Your task to perform on an android device: delete browsing data in the chrome app Image 0: 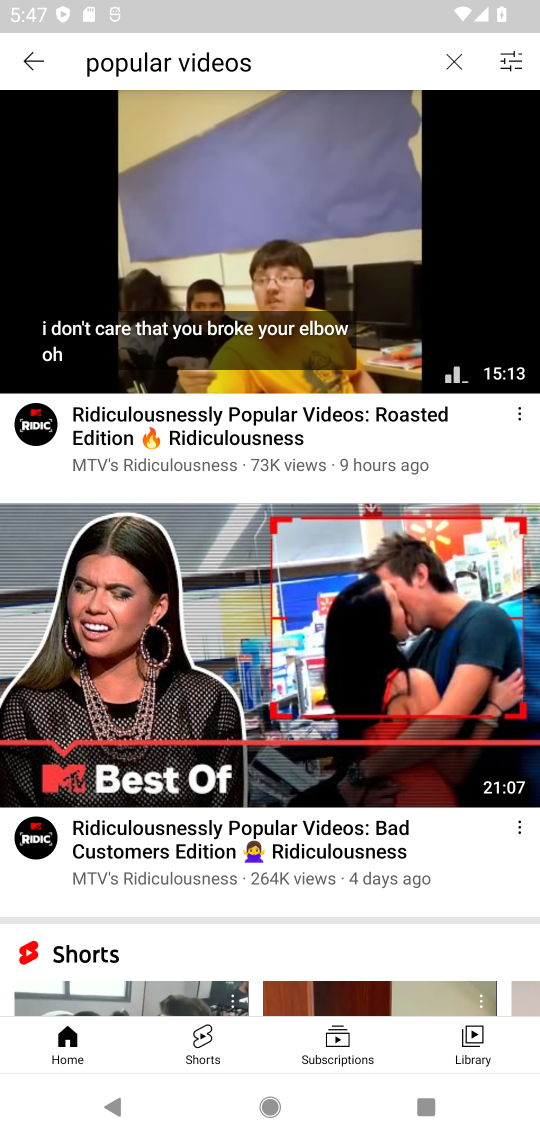
Step 0: press home button
Your task to perform on an android device: delete browsing data in the chrome app Image 1: 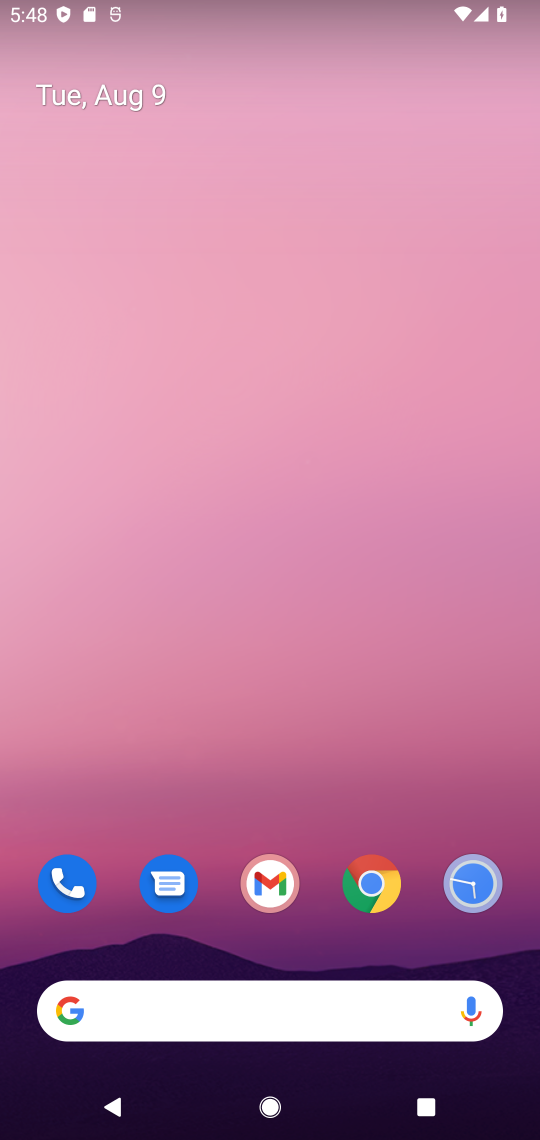
Step 1: click (384, 872)
Your task to perform on an android device: delete browsing data in the chrome app Image 2: 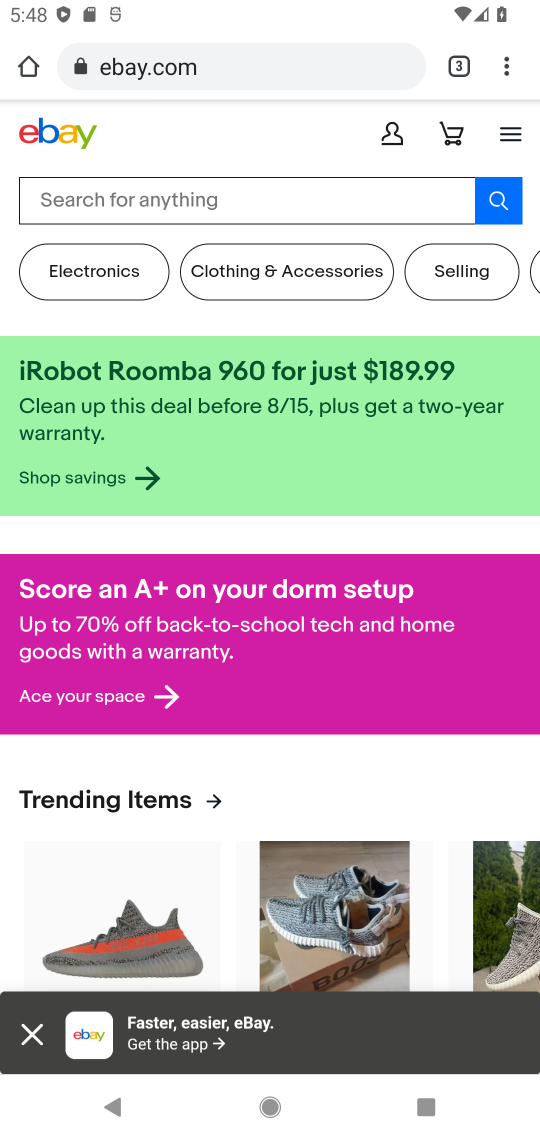
Step 2: click (512, 70)
Your task to perform on an android device: delete browsing data in the chrome app Image 3: 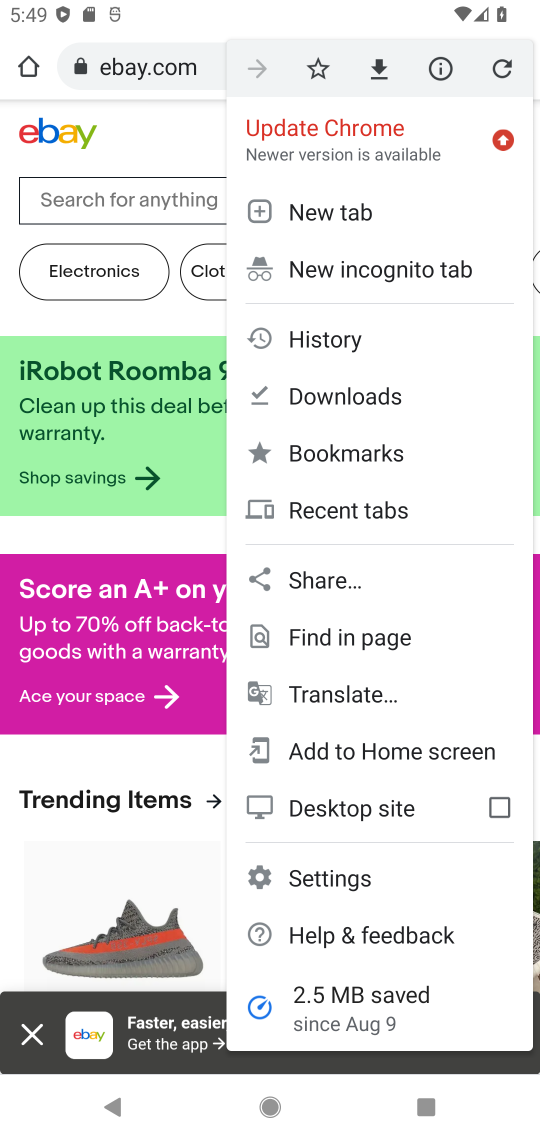
Step 3: click (337, 349)
Your task to perform on an android device: delete browsing data in the chrome app Image 4: 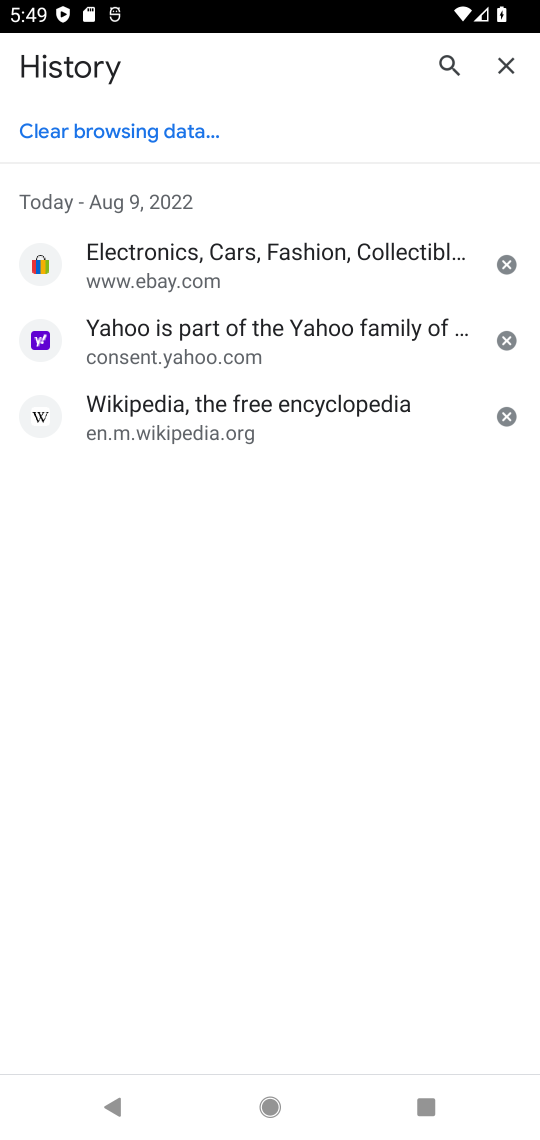
Step 4: click (74, 131)
Your task to perform on an android device: delete browsing data in the chrome app Image 5: 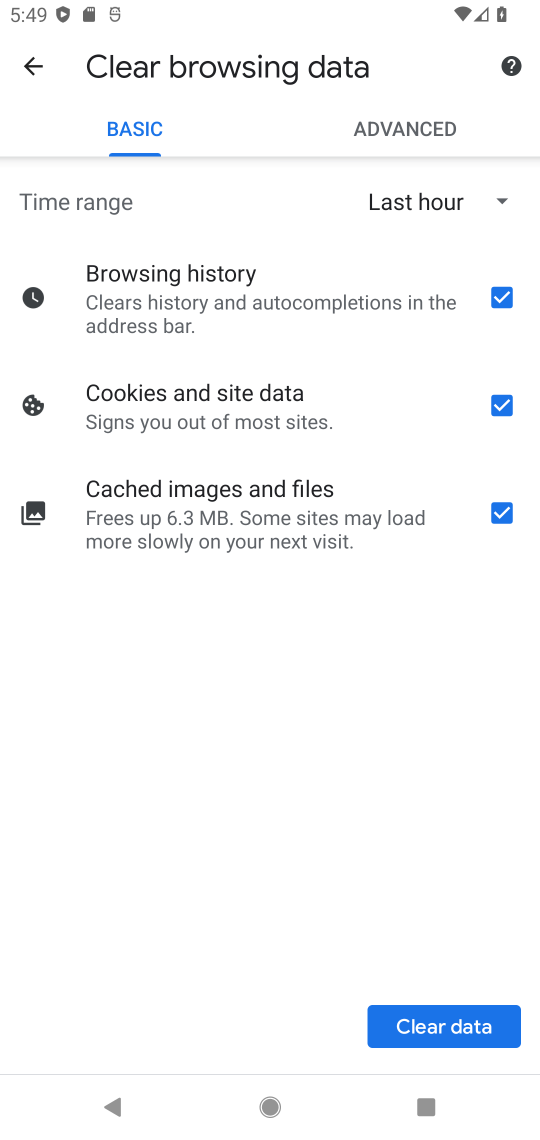
Step 5: click (469, 1028)
Your task to perform on an android device: delete browsing data in the chrome app Image 6: 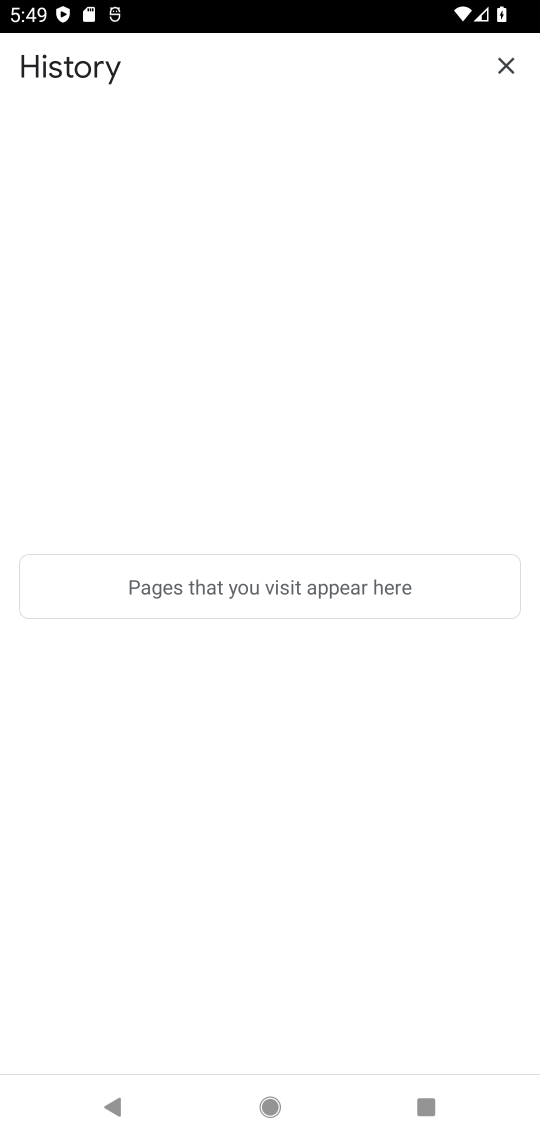
Step 6: task complete